Your task to perform on an android device: turn notification dots on Image 0: 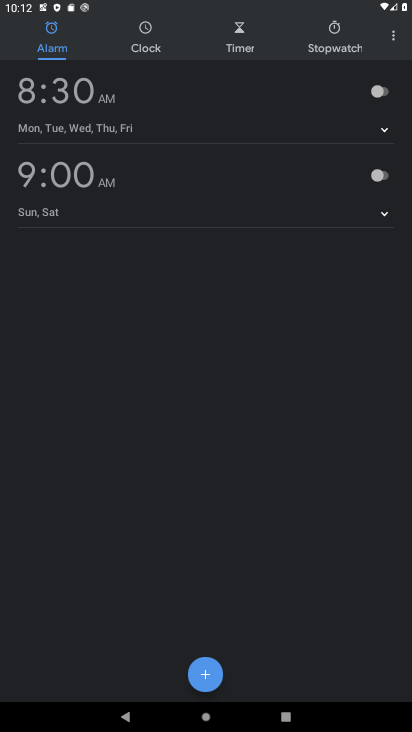
Step 0: press home button
Your task to perform on an android device: turn notification dots on Image 1: 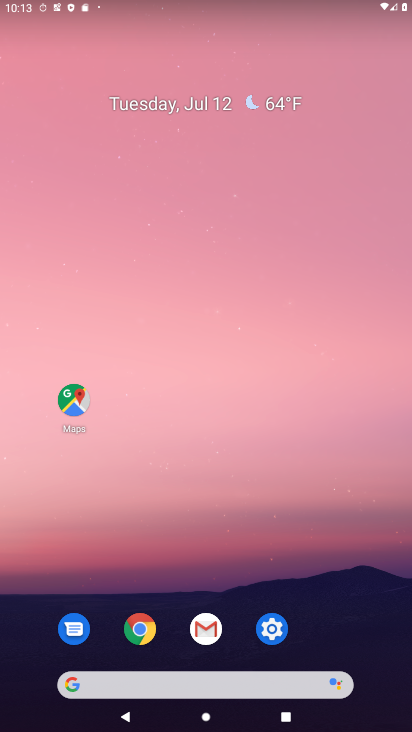
Step 1: click (265, 638)
Your task to perform on an android device: turn notification dots on Image 2: 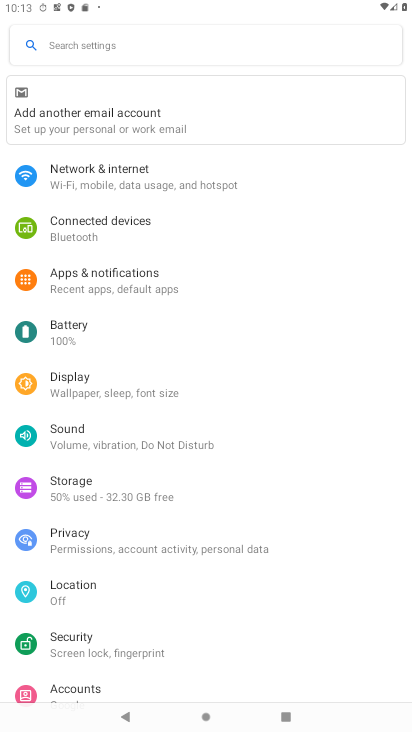
Step 2: click (116, 49)
Your task to perform on an android device: turn notification dots on Image 3: 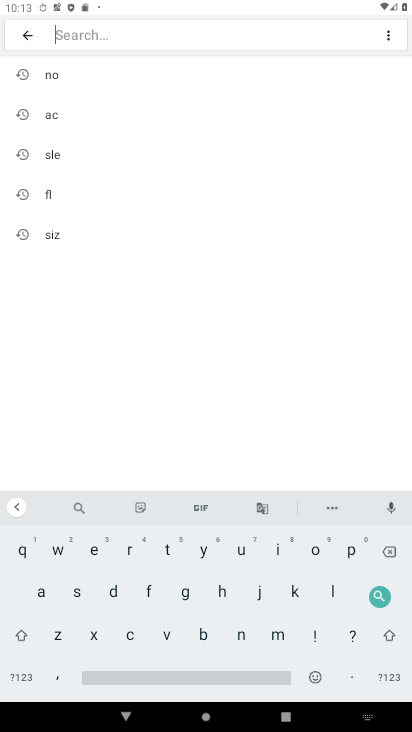
Step 3: click (73, 78)
Your task to perform on an android device: turn notification dots on Image 4: 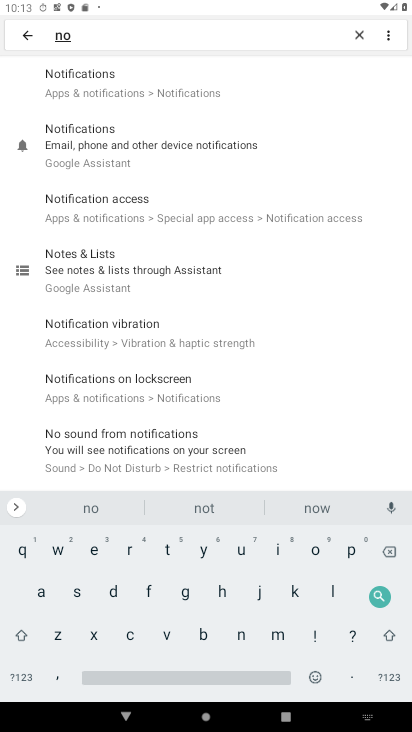
Step 4: click (145, 89)
Your task to perform on an android device: turn notification dots on Image 5: 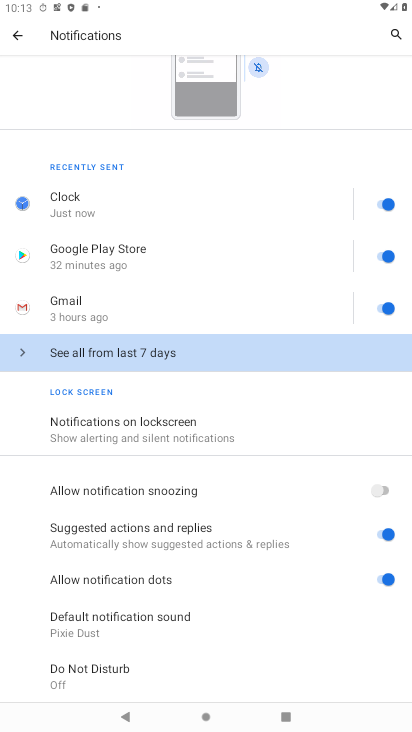
Step 5: click (374, 581)
Your task to perform on an android device: turn notification dots on Image 6: 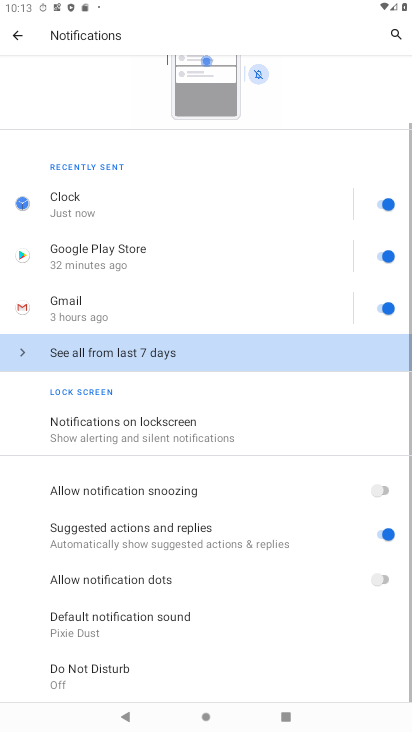
Step 6: click (374, 581)
Your task to perform on an android device: turn notification dots on Image 7: 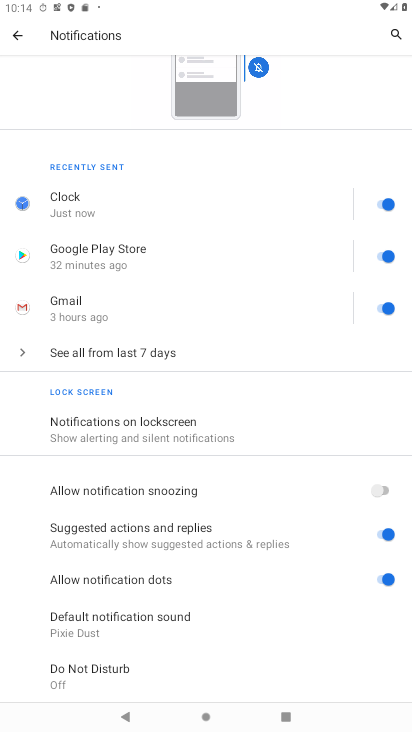
Step 7: task complete